Your task to perform on an android device: Do I have any events this weekend? Image 0: 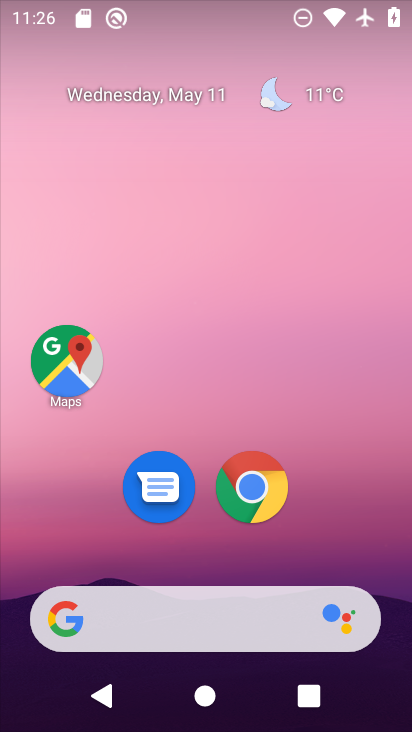
Step 0: drag from (328, 464) to (227, 5)
Your task to perform on an android device: Do I have any events this weekend? Image 1: 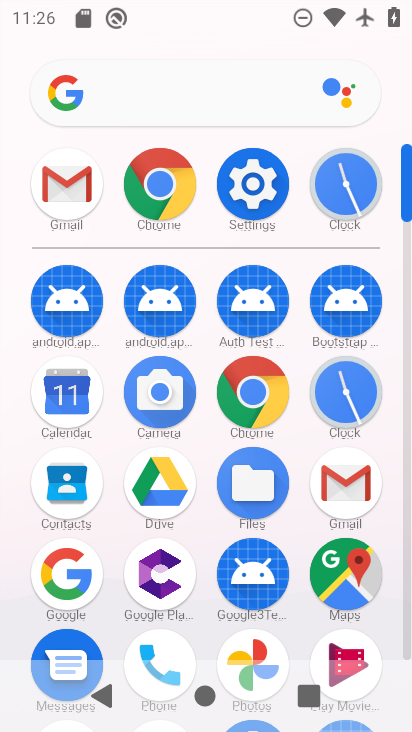
Step 1: drag from (6, 589) to (33, 256)
Your task to perform on an android device: Do I have any events this weekend? Image 2: 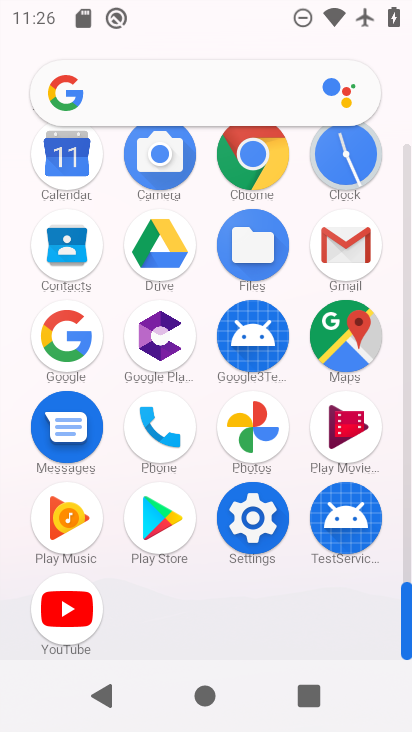
Step 2: click (65, 163)
Your task to perform on an android device: Do I have any events this weekend? Image 3: 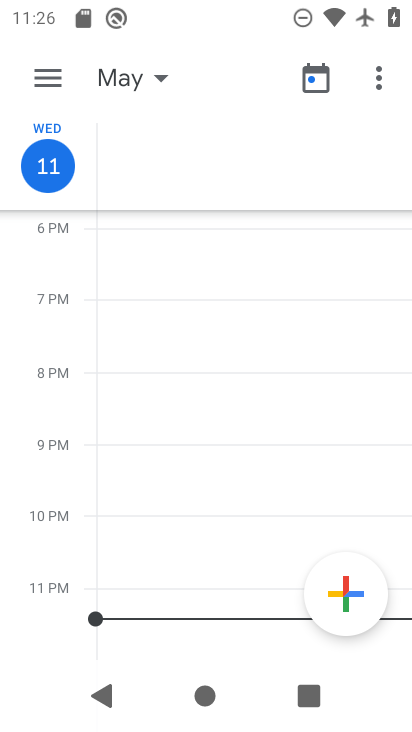
Step 3: click (56, 70)
Your task to perform on an android device: Do I have any events this weekend? Image 4: 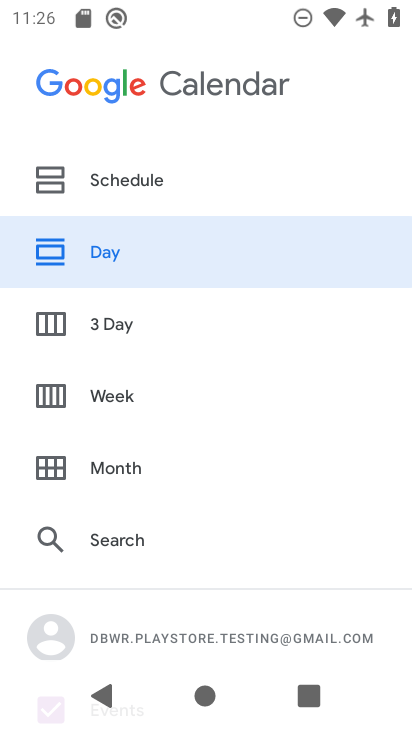
Step 4: click (103, 411)
Your task to perform on an android device: Do I have any events this weekend? Image 5: 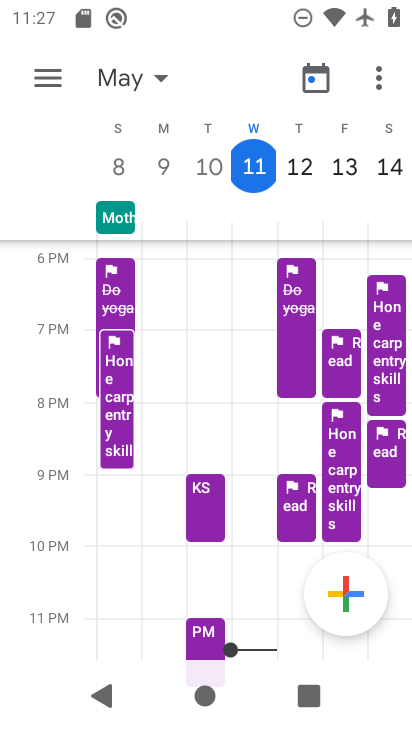
Step 5: click (377, 156)
Your task to perform on an android device: Do I have any events this weekend? Image 6: 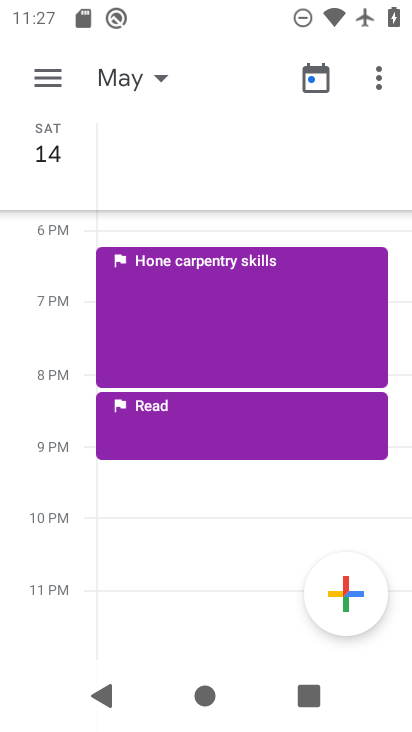
Step 6: task complete